Your task to perform on an android device: See recent photos Image 0: 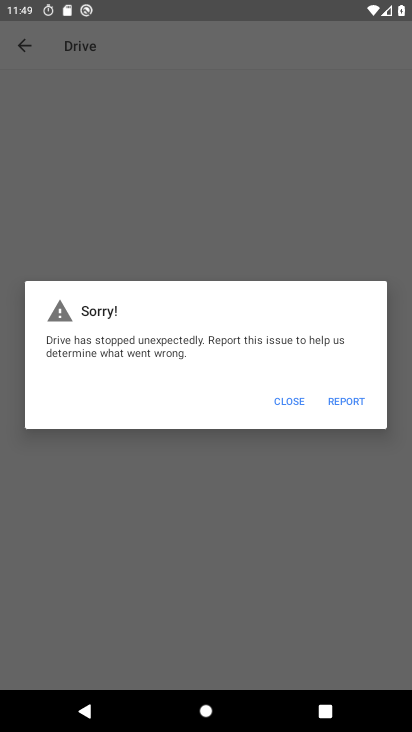
Step 0: press home button
Your task to perform on an android device: See recent photos Image 1: 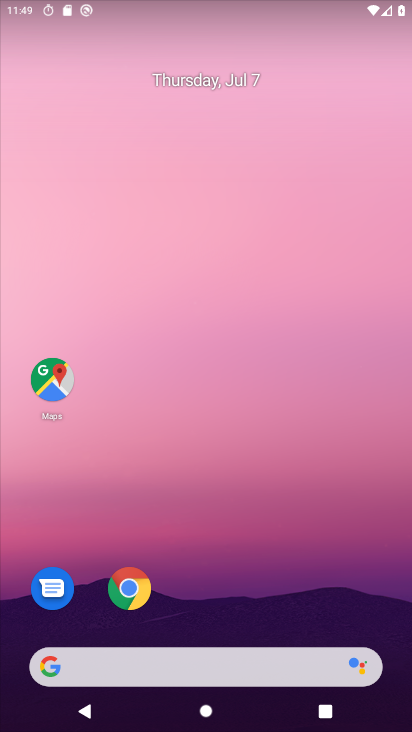
Step 1: drag from (203, 665) to (294, 128)
Your task to perform on an android device: See recent photos Image 2: 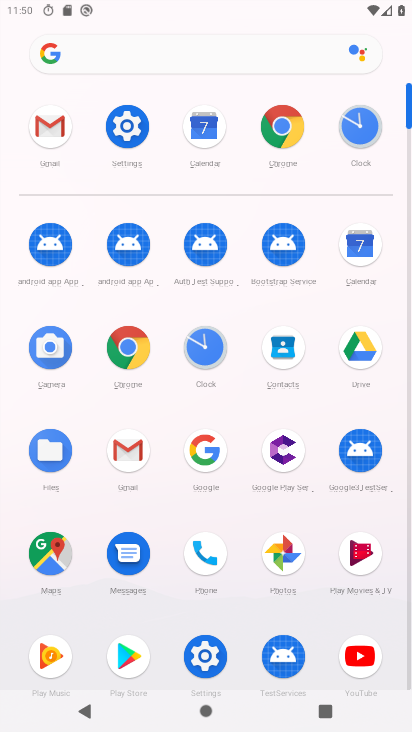
Step 2: click (288, 546)
Your task to perform on an android device: See recent photos Image 3: 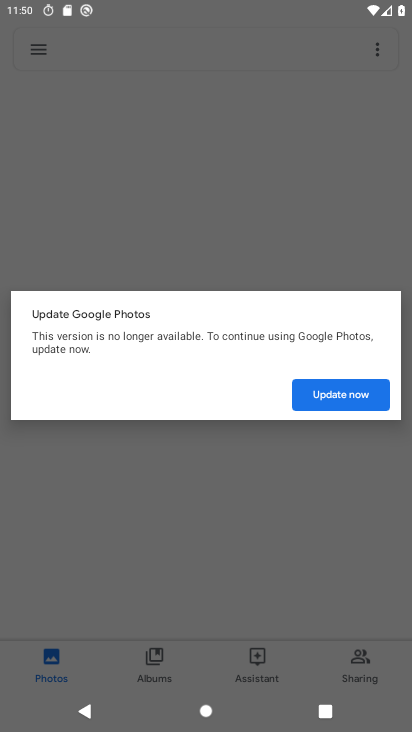
Step 3: click (341, 395)
Your task to perform on an android device: See recent photos Image 4: 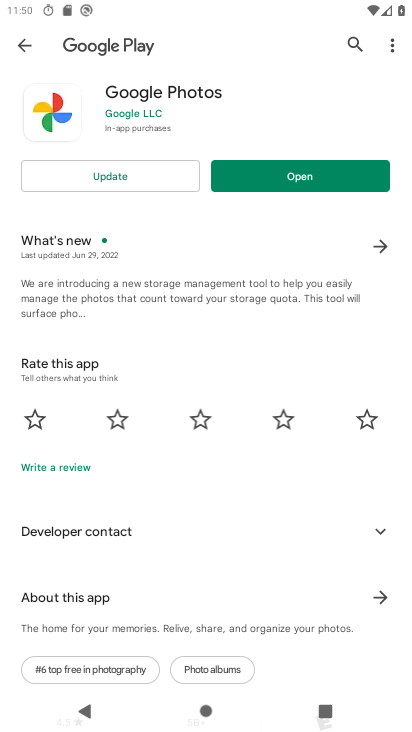
Step 4: click (306, 175)
Your task to perform on an android device: See recent photos Image 5: 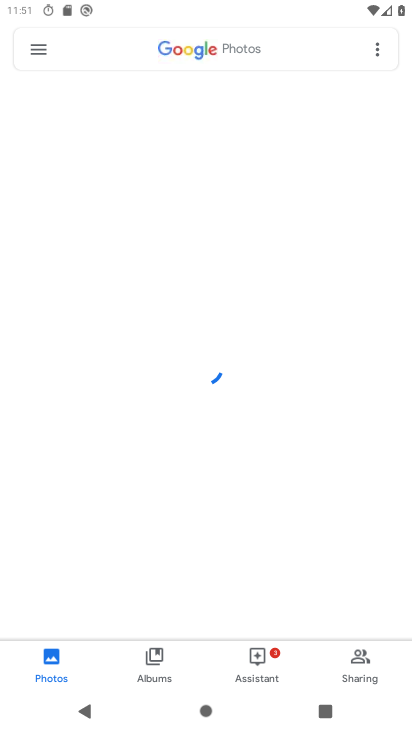
Step 5: click (150, 672)
Your task to perform on an android device: See recent photos Image 6: 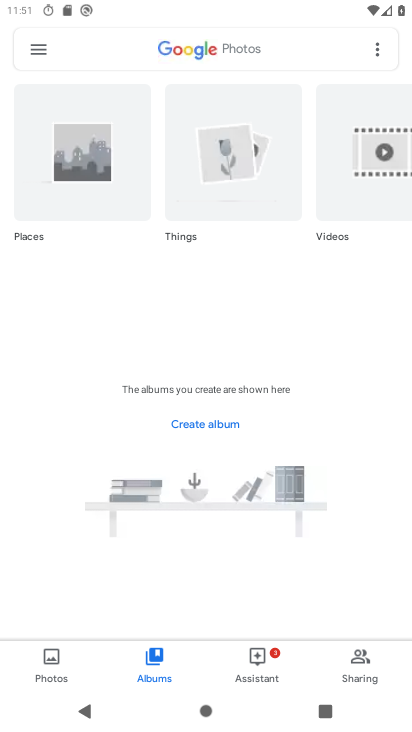
Step 6: click (52, 666)
Your task to perform on an android device: See recent photos Image 7: 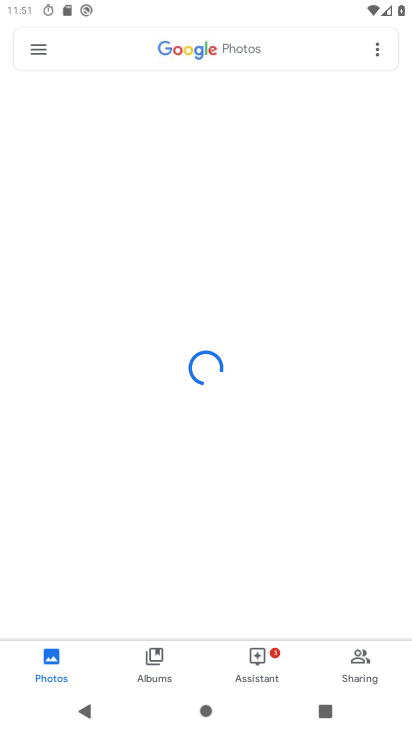
Step 7: task complete